Your task to perform on an android device: check data usage Image 0: 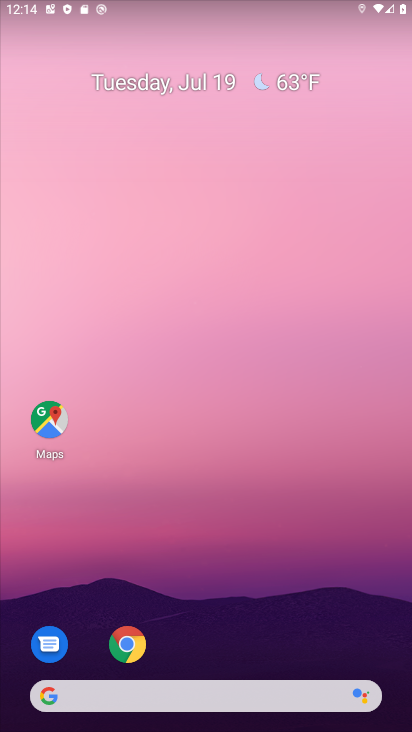
Step 0: drag from (201, 710) to (180, 240)
Your task to perform on an android device: check data usage Image 1: 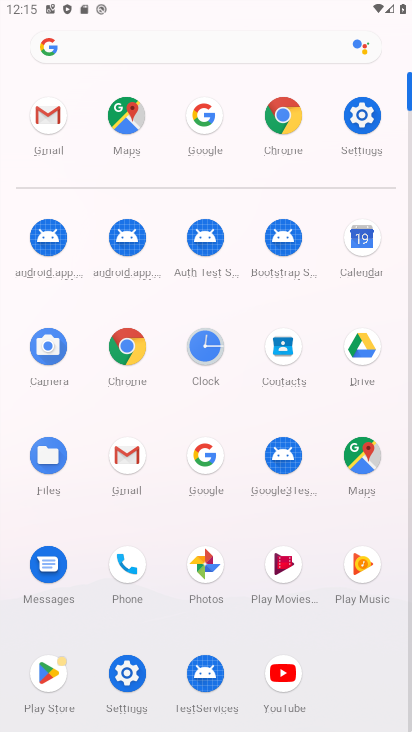
Step 1: click (361, 114)
Your task to perform on an android device: check data usage Image 2: 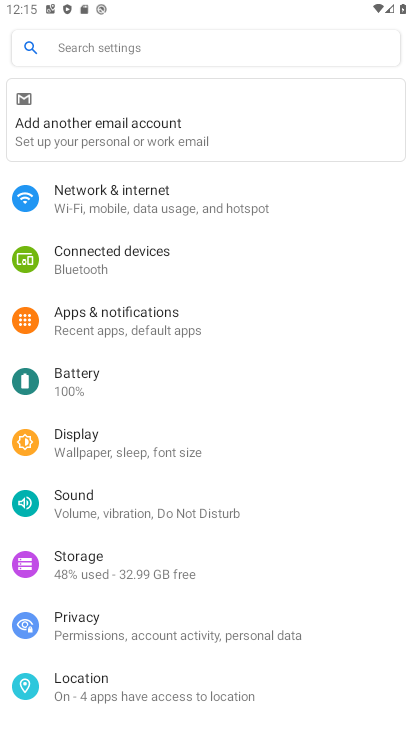
Step 2: click (74, 208)
Your task to perform on an android device: check data usage Image 3: 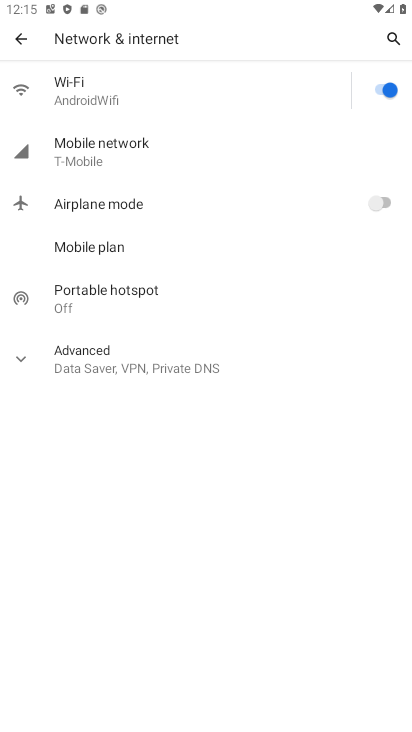
Step 3: click (85, 149)
Your task to perform on an android device: check data usage Image 4: 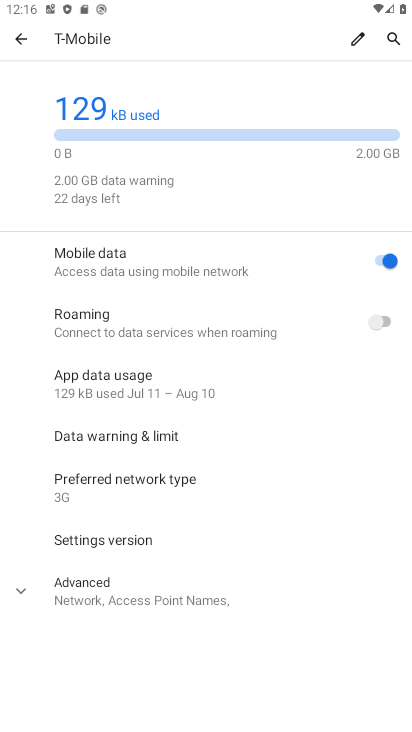
Step 4: click (112, 384)
Your task to perform on an android device: check data usage Image 5: 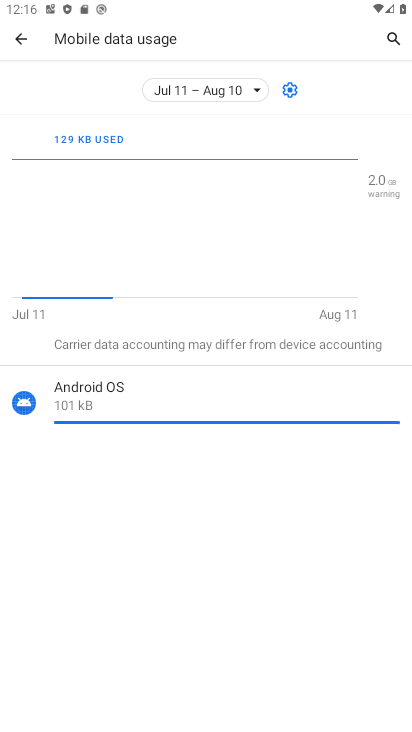
Step 5: task complete